Your task to perform on an android device: open app "Reddit" Image 0: 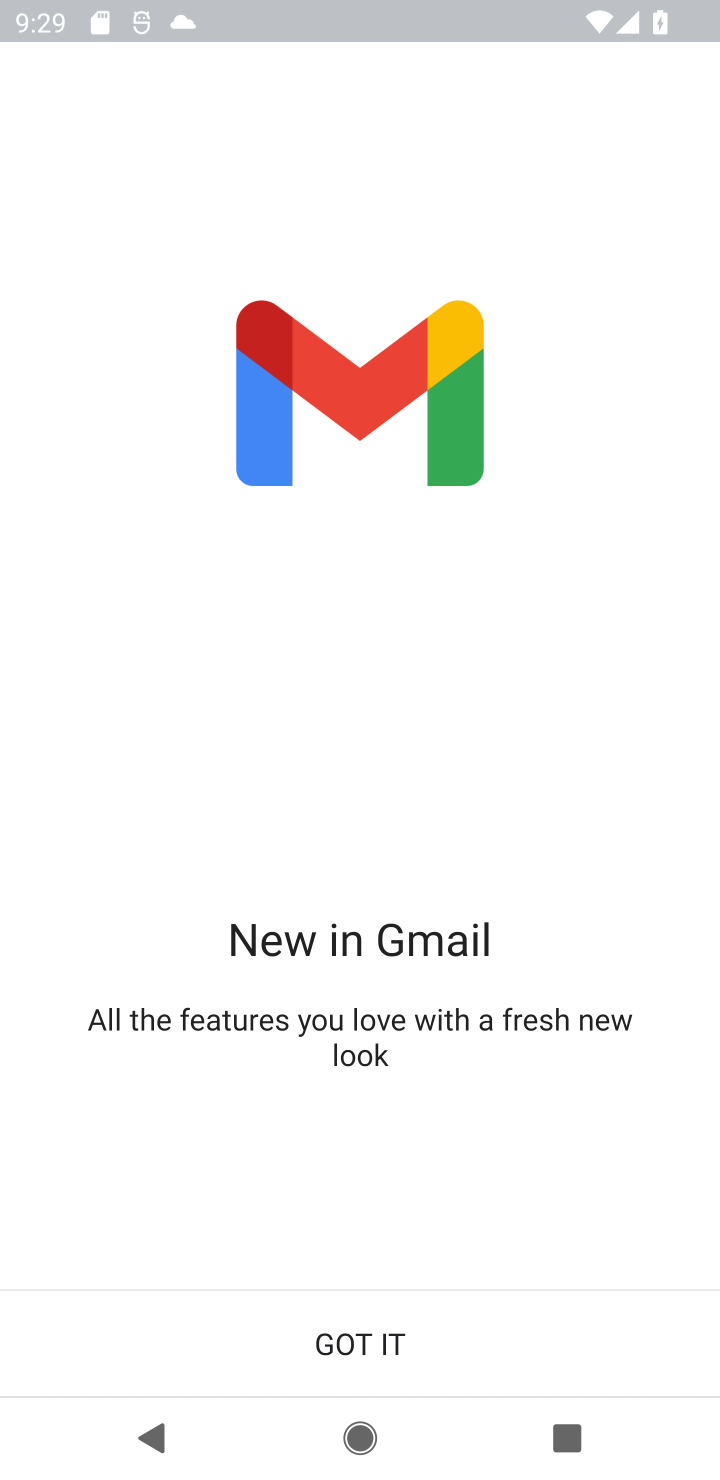
Step 0: press home button
Your task to perform on an android device: open app "Reddit" Image 1: 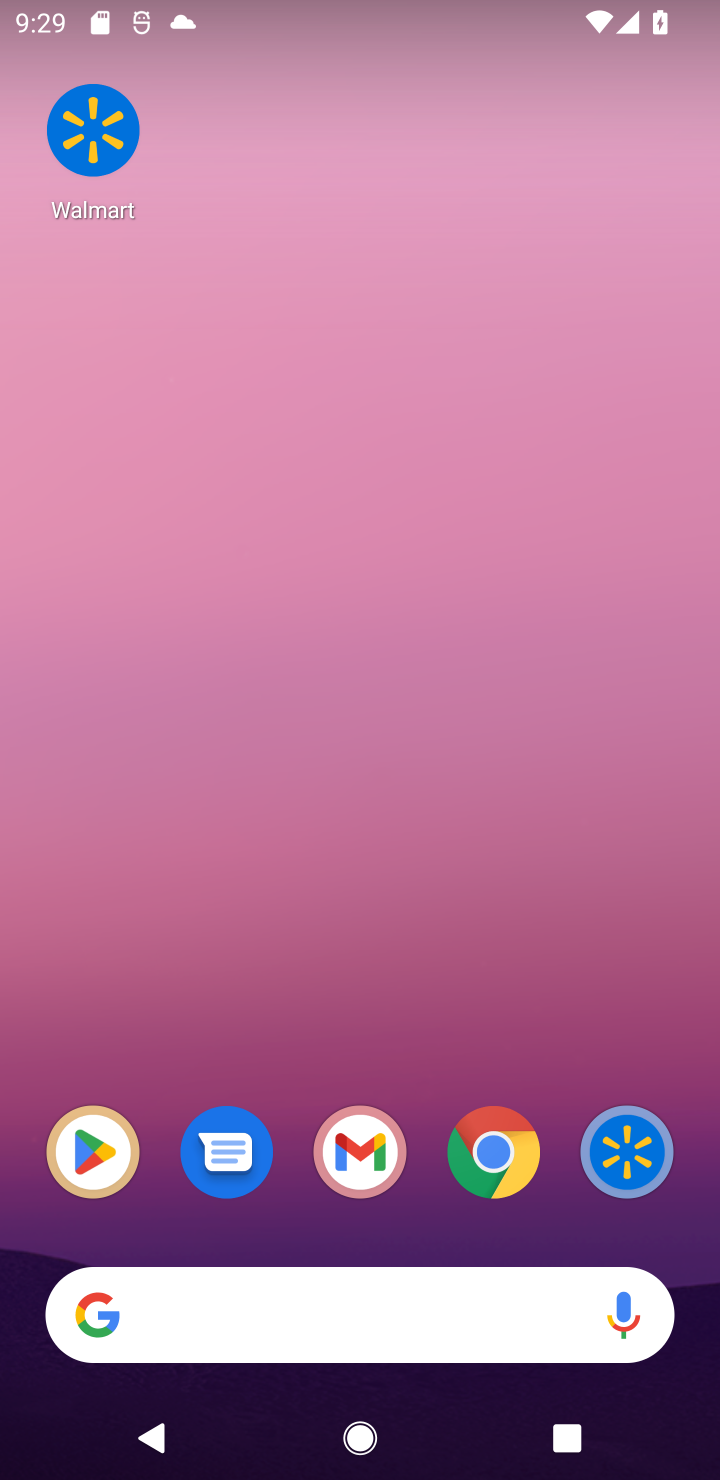
Step 1: click (92, 1170)
Your task to perform on an android device: open app "Reddit" Image 2: 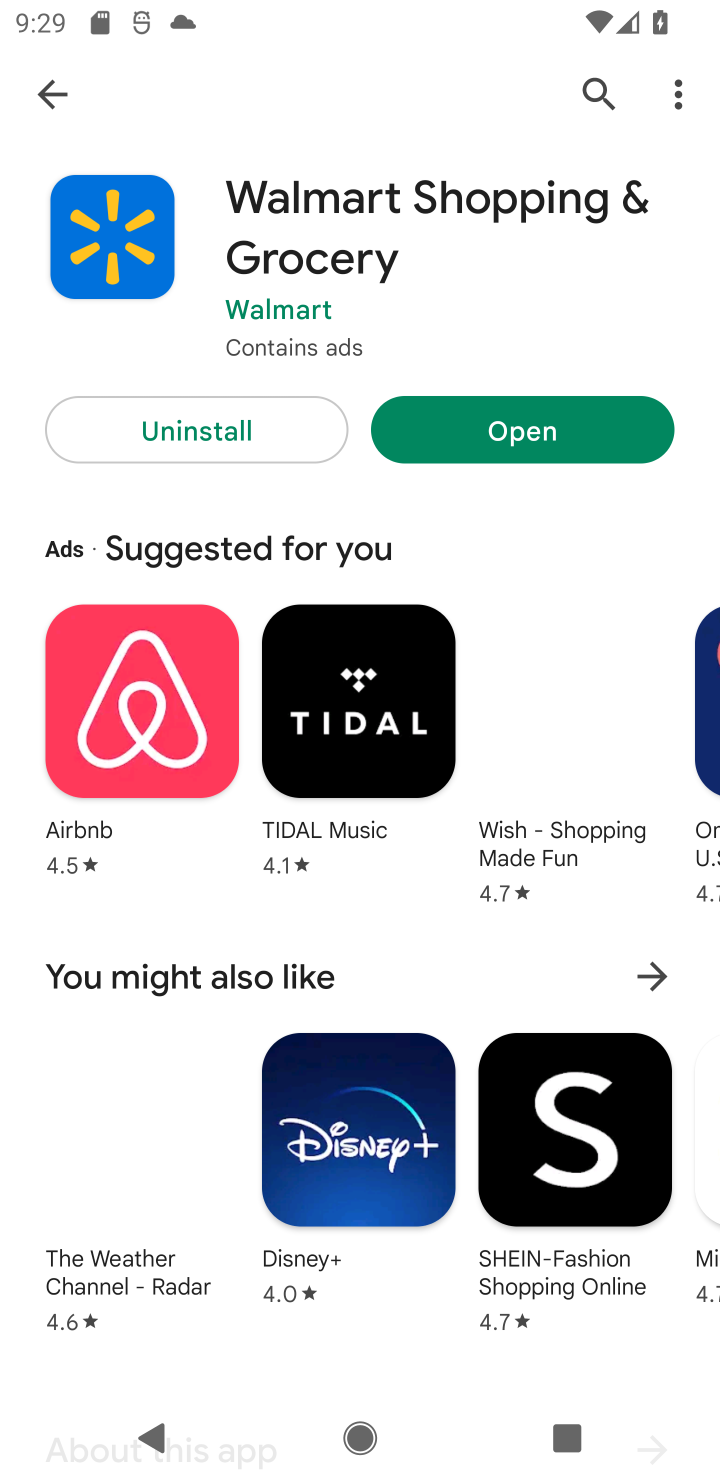
Step 2: click (475, 424)
Your task to perform on an android device: open app "Reddit" Image 3: 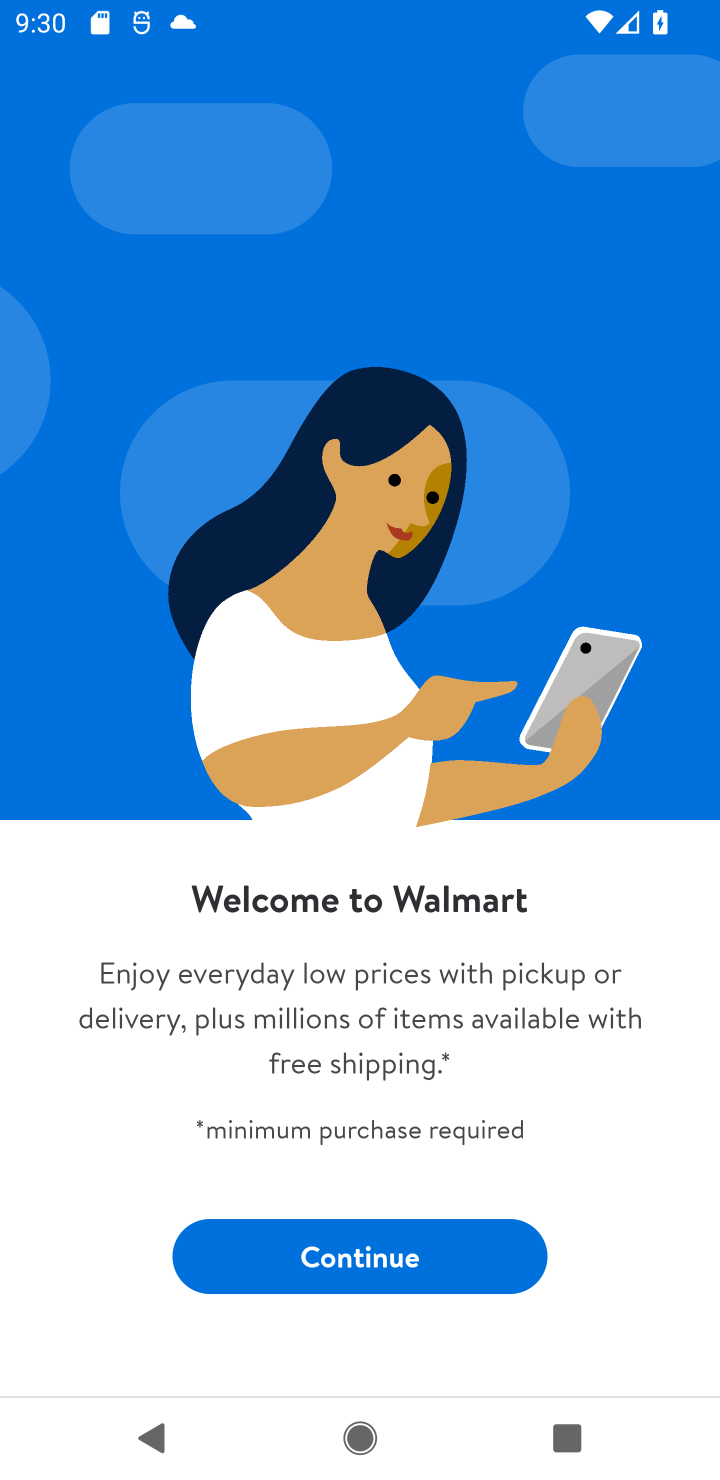
Step 3: press home button
Your task to perform on an android device: open app "Reddit" Image 4: 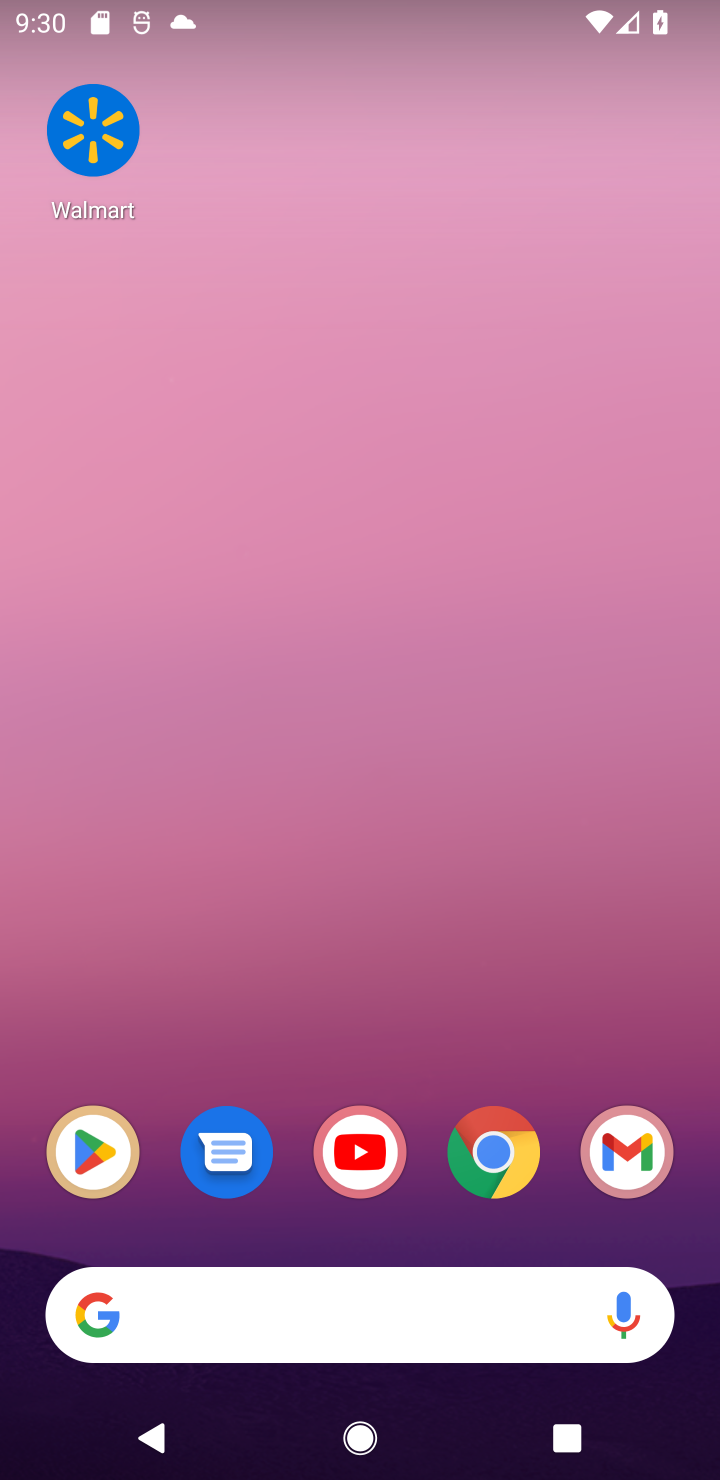
Step 4: click (79, 1186)
Your task to perform on an android device: open app "Reddit" Image 5: 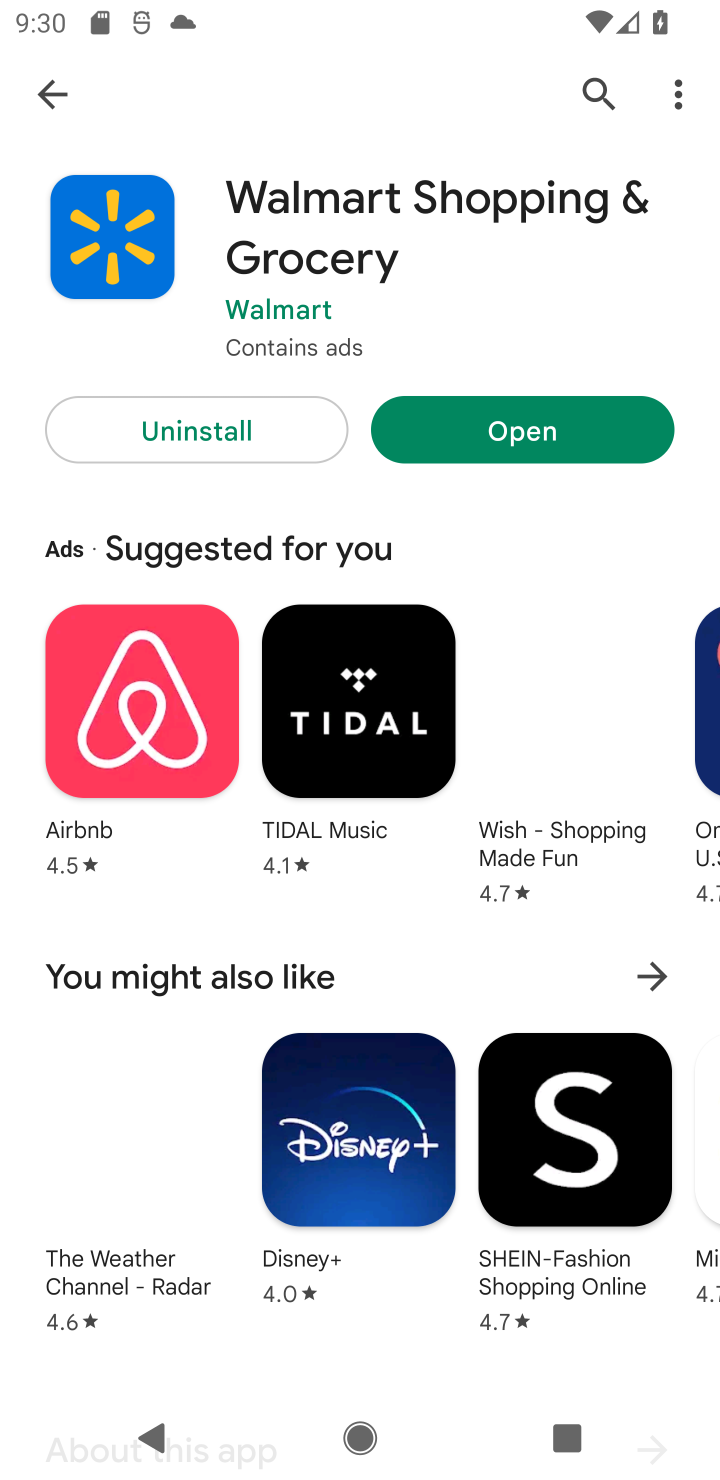
Step 5: click (50, 103)
Your task to perform on an android device: open app "Reddit" Image 6: 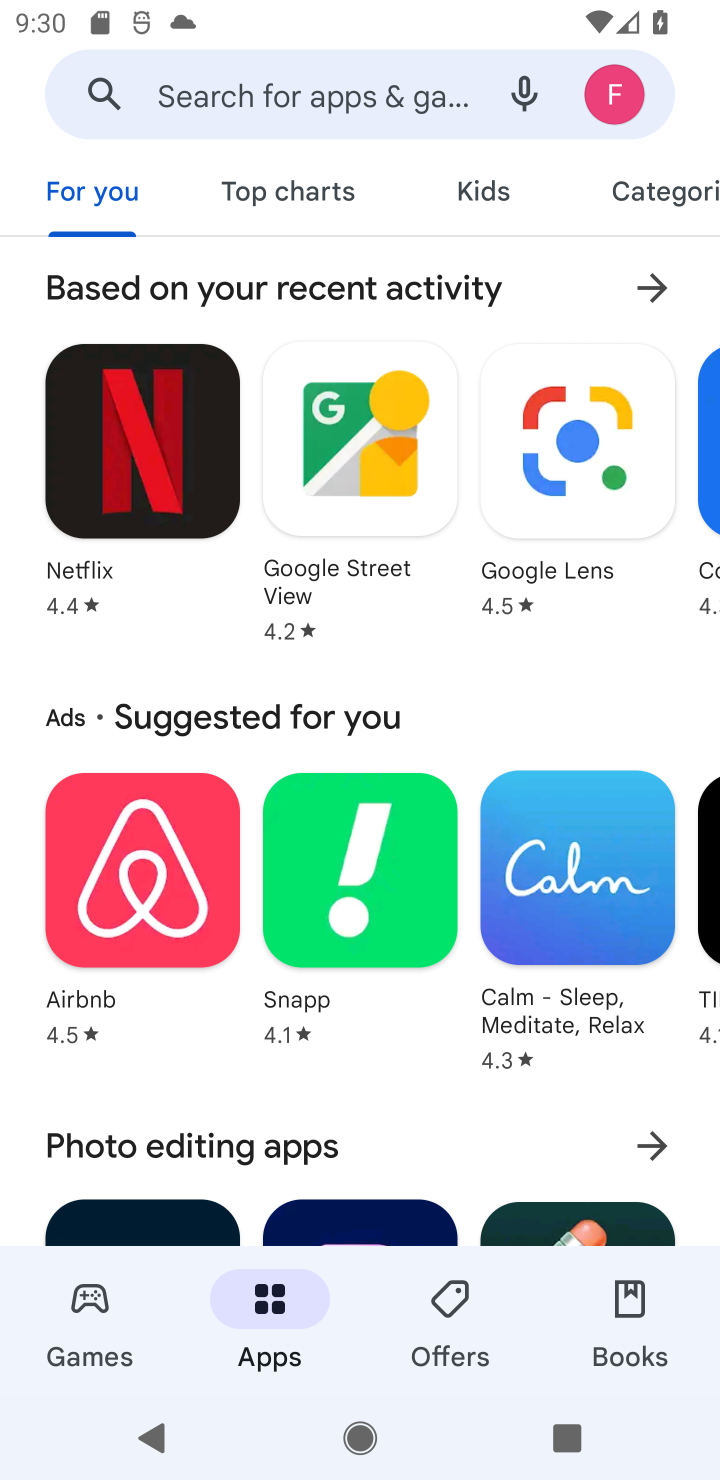
Step 6: click (282, 66)
Your task to perform on an android device: open app "Reddit" Image 7: 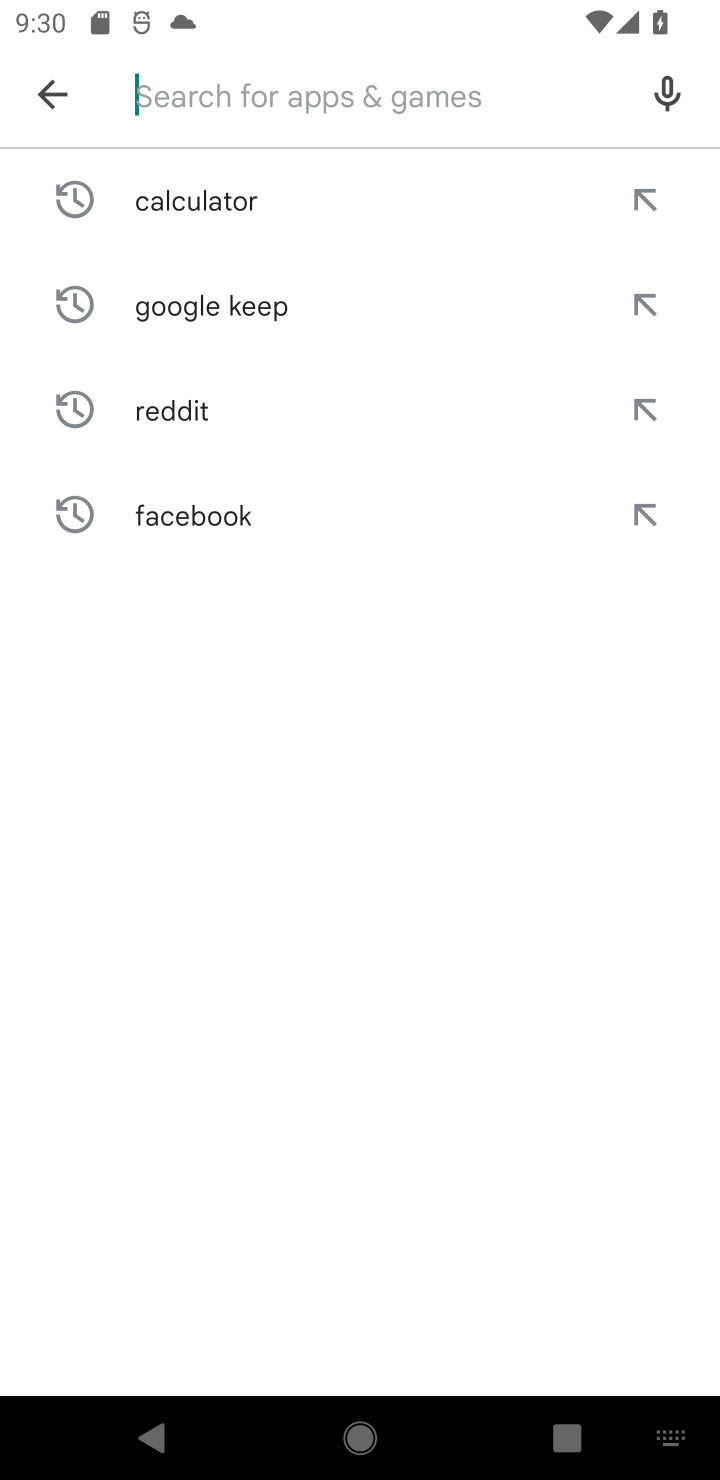
Step 7: type "Reddit"
Your task to perform on an android device: open app "Reddit" Image 8: 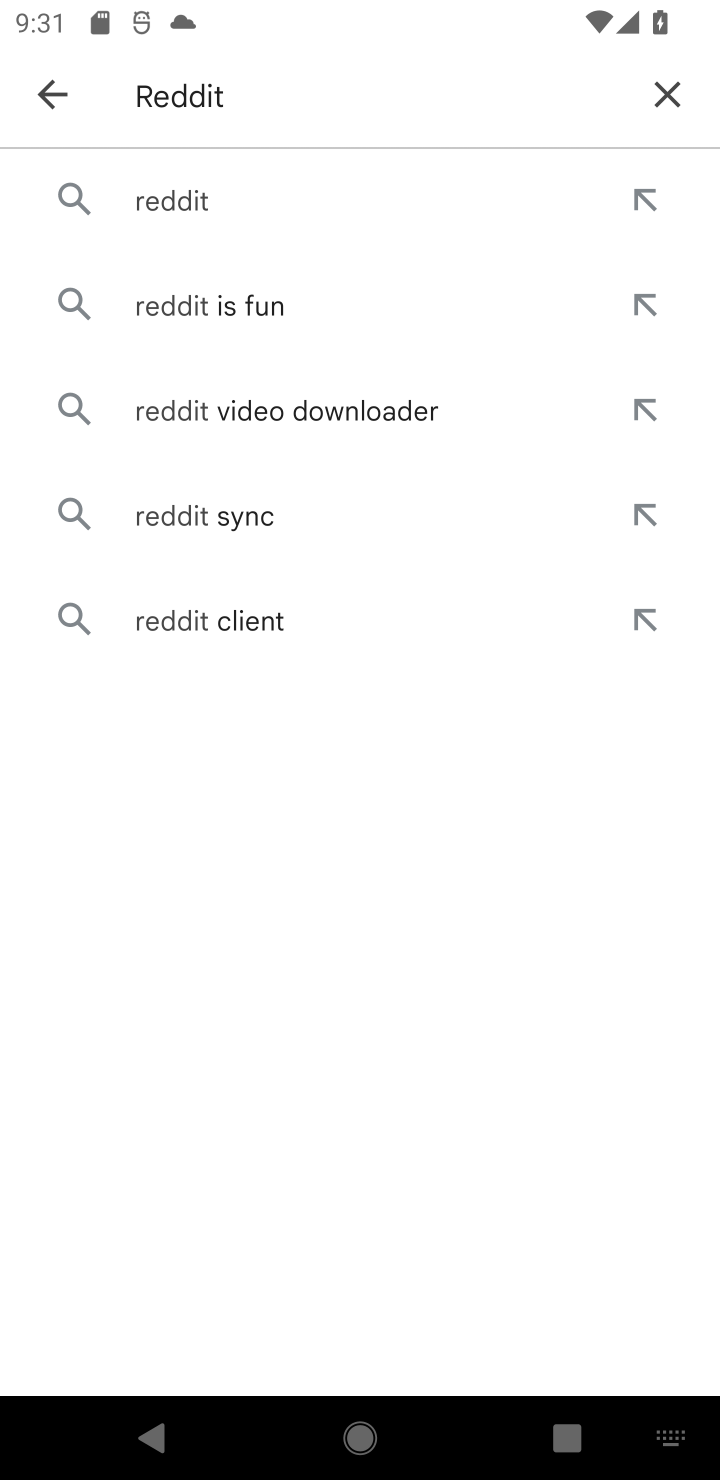
Step 8: click (176, 204)
Your task to perform on an android device: open app "Reddit" Image 9: 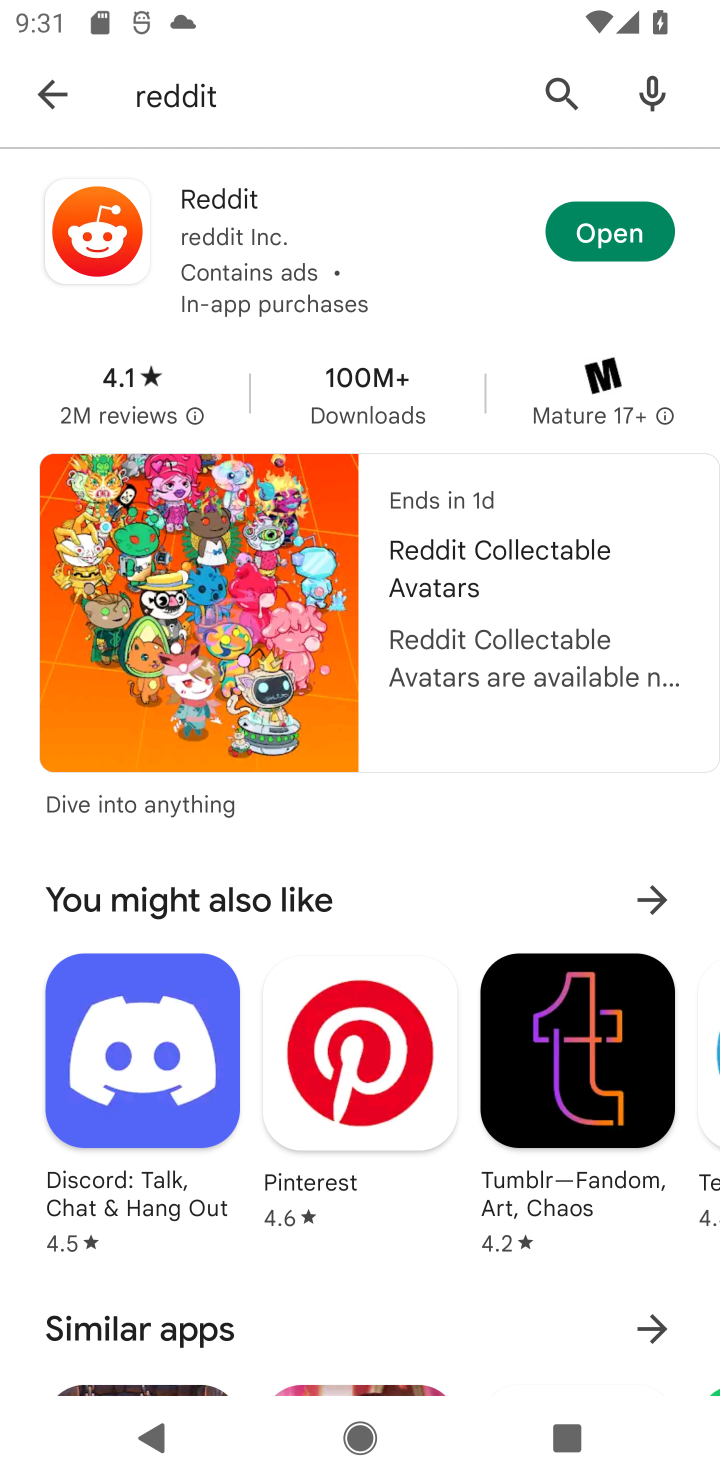
Step 9: click (570, 235)
Your task to perform on an android device: open app "Reddit" Image 10: 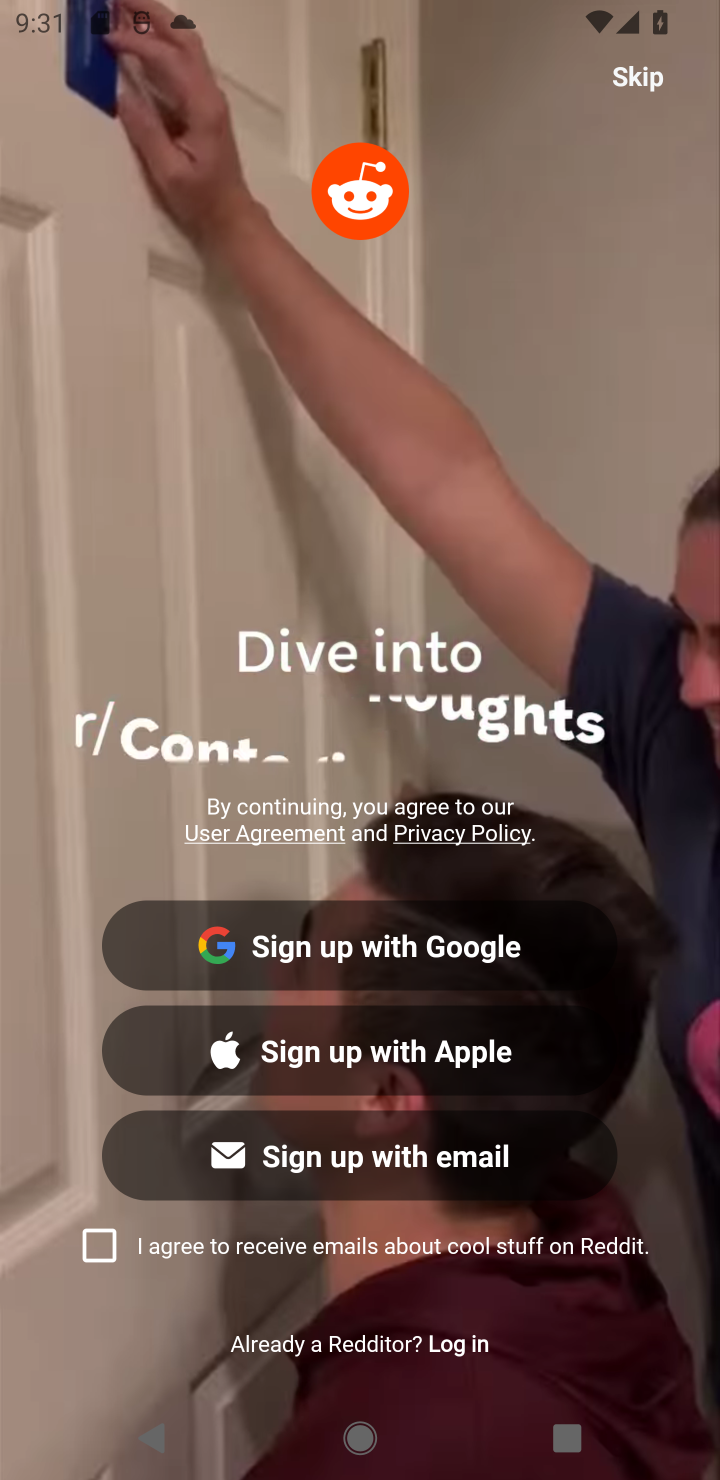
Step 10: task complete